Your task to perform on an android device: Open the calendar app, open the side menu, and click the "Day" option Image 0: 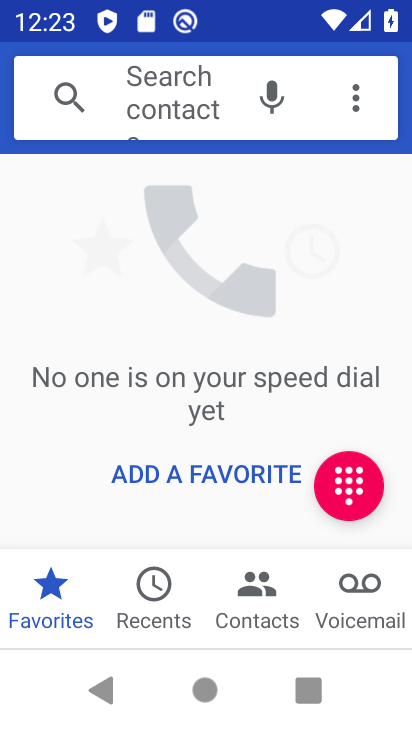
Step 0: press back button
Your task to perform on an android device: Open the calendar app, open the side menu, and click the "Day" option Image 1: 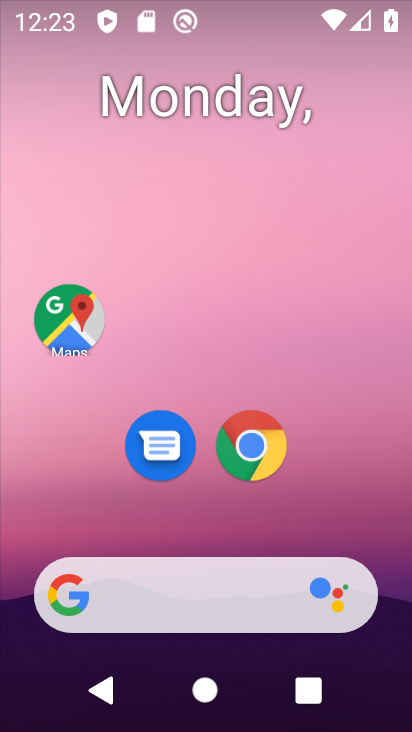
Step 1: drag from (359, 628) to (302, 43)
Your task to perform on an android device: Open the calendar app, open the side menu, and click the "Day" option Image 2: 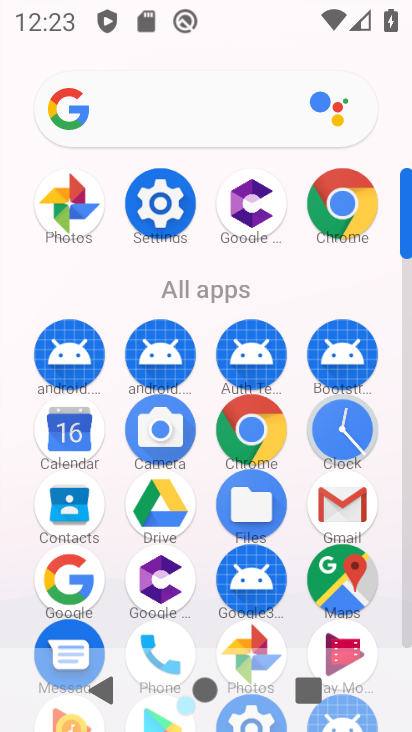
Step 2: click (54, 428)
Your task to perform on an android device: Open the calendar app, open the side menu, and click the "Day" option Image 3: 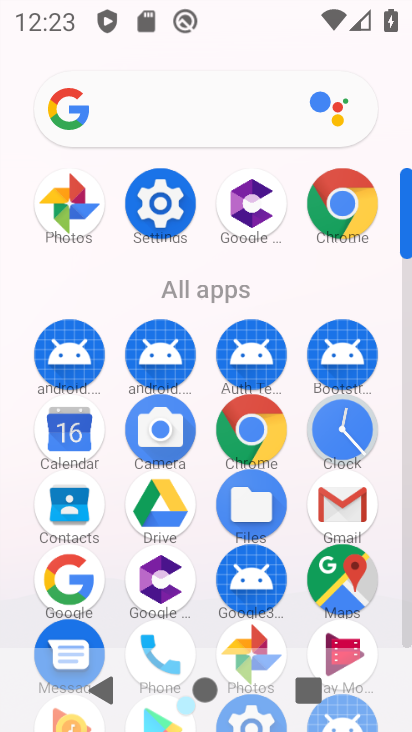
Step 3: click (54, 428)
Your task to perform on an android device: Open the calendar app, open the side menu, and click the "Day" option Image 4: 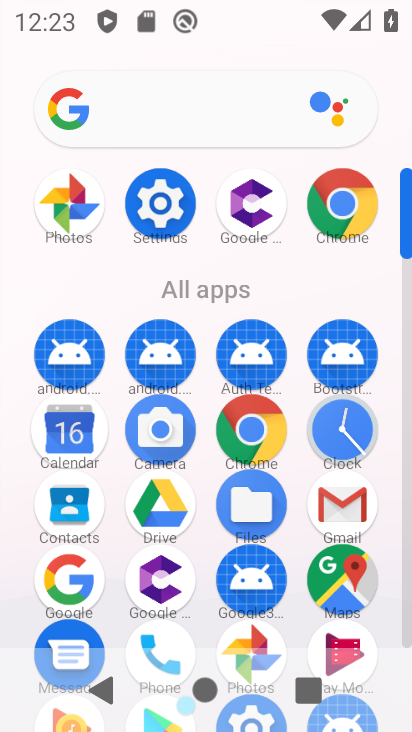
Step 4: click (55, 425)
Your task to perform on an android device: Open the calendar app, open the side menu, and click the "Day" option Image 5: 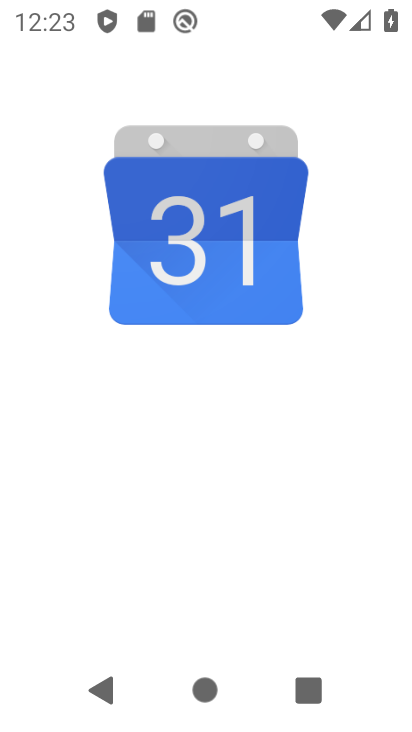
Step 5: click (64, 427)
Your task to perform on an android device: Open the calendar app, open the side menu, and click the "Day" option Image 6: 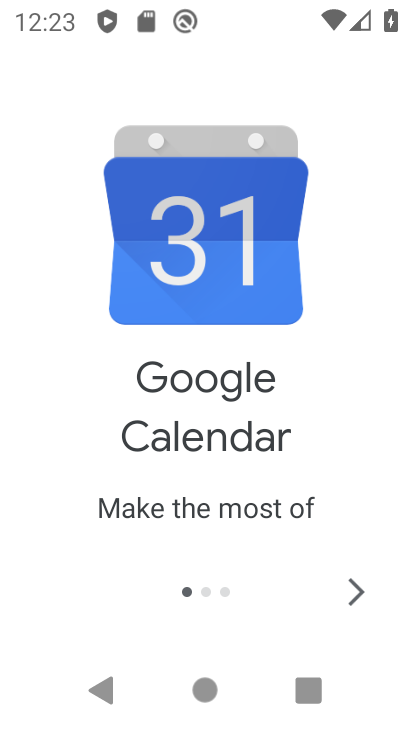
Step 6: click (345, 592)
Your task to perform on an android device: Open the calendar app, open the side menu, and click the "Day" option Image 7: 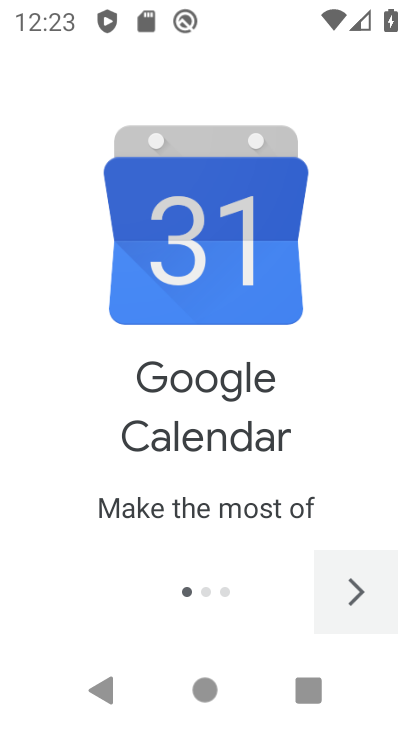
Step 7: click (352, 590)
Your task to perform on an android device: Open the calendar app, open the side menu, and click the "Day" option Image 8: 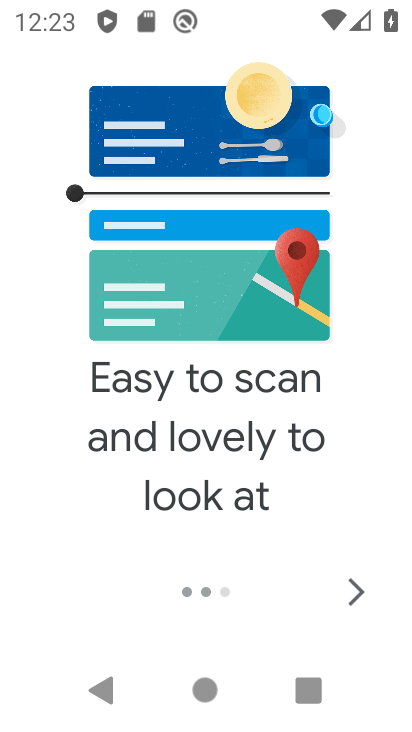
Step 8: click (352, 590)
Your task to perform on an android device: Open the calendar app, open the side menu, and click the "Day" option Image 9: 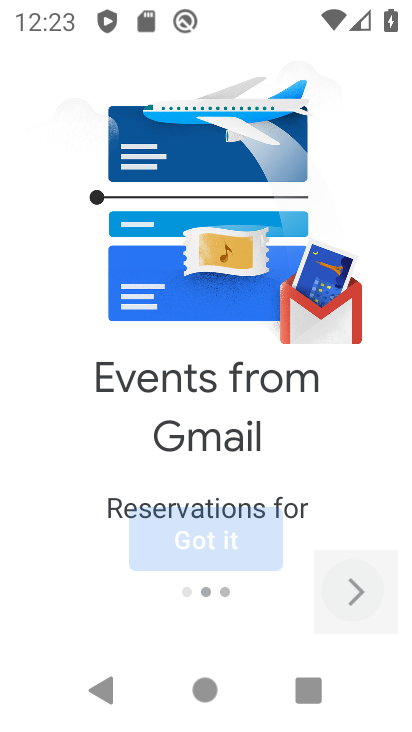
Step 9: click (353, 590)
Your task to perform on an android device: Open the calendar app, open the side menu, and click the "Day" option Image 10: 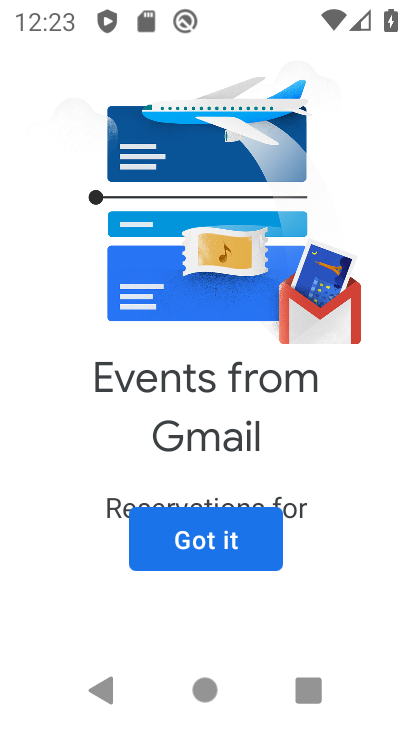
Step 10: click (216, 540)
Your task to perform on an android device: Open the calendar app, open the side menu, and click the "Day" option Image 11: 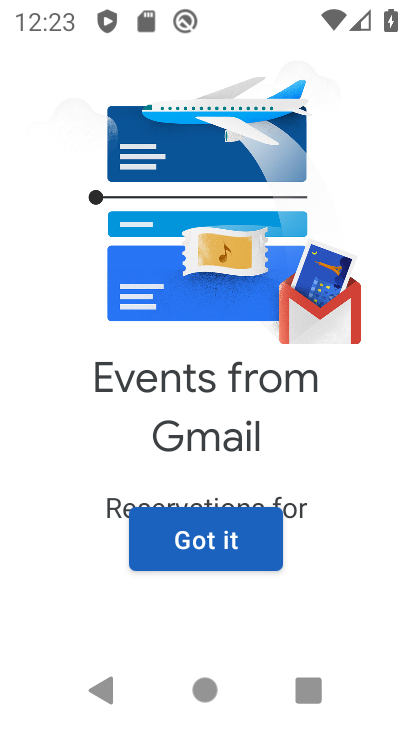
Step 11: click (216, 540)
Your task to perform on an android device: Open the calendar app, open the side menu, and click the "Day" option Image 12: 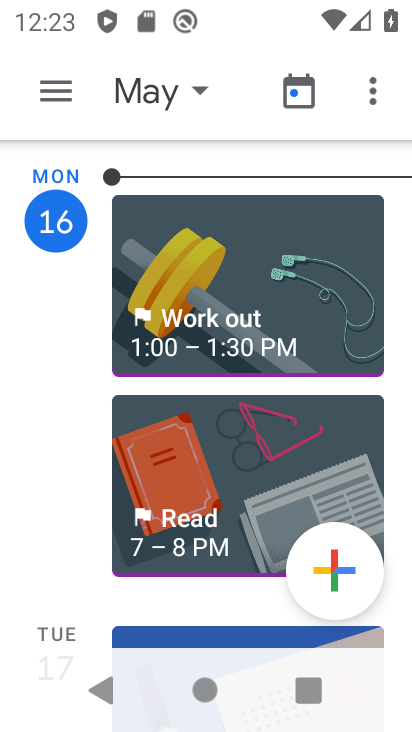
Step 12: click (64, 89)
Your task to perform on an android device: Open the calendar app, open the side menu, and click the "Day" option Image 13: 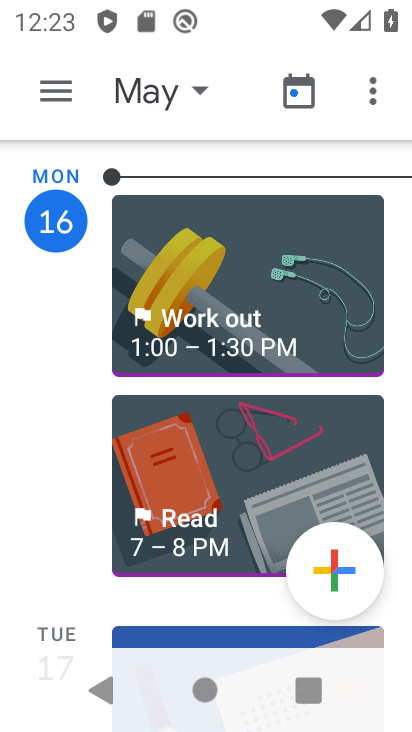
Step 13: click (64, 89)
Your task to perform on an android device: Open the calendar app, open the side menu, and click the "Day" option Image 14: 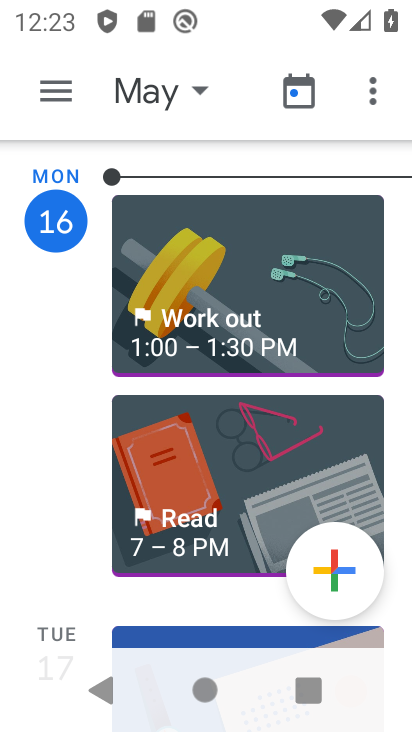
Step 14: click (64, 90)
Your task to perform on an android device: Open the calendar app, open the side menu, and click the "Day" option Image 15: 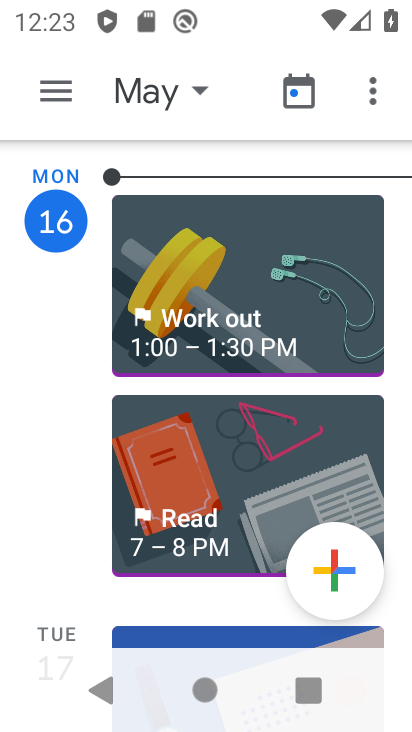
Step 15: click (63, 92)
Your task to perform on an android device: Open the calendar app, open the side menu, and click the "Day" option Image 16: 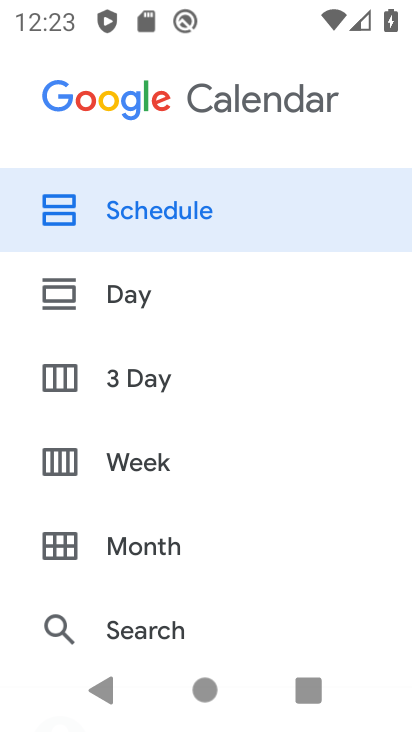
Step 16: click (112, 306)
Your task to perform on an android device: Open the calendar app, open the side menu, and click the "Day" option Image 17: 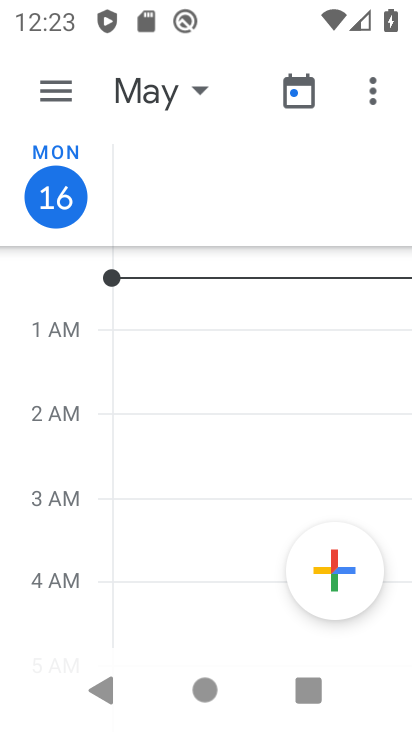
Step 17: task complete